Your task to perform on an android device: Go to battery settings Image 0: 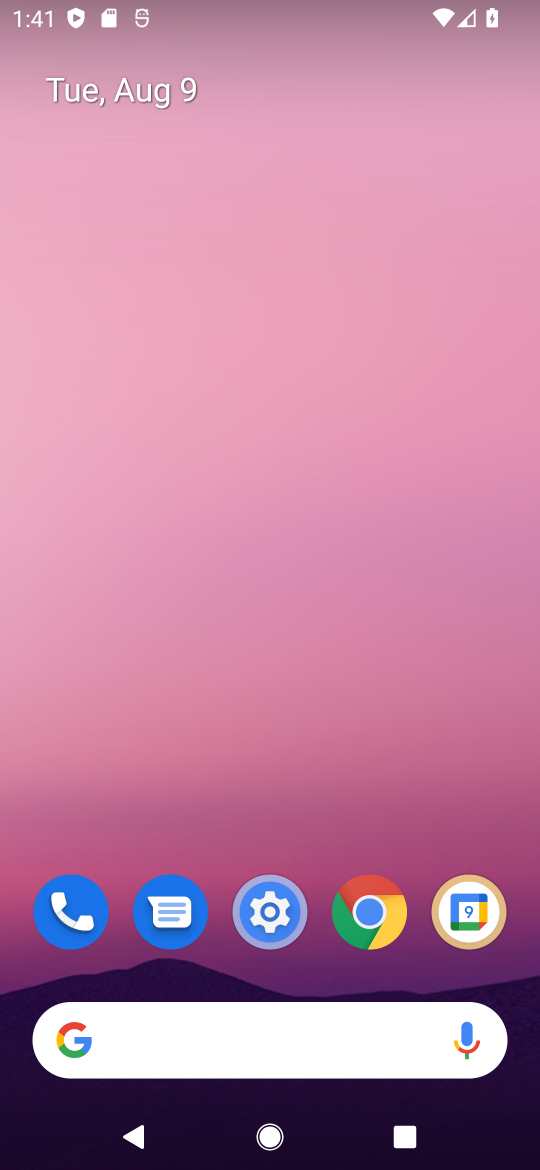
Step 0: click (267, 901)
Your task to perform on an android device: Go to battery settings Image 1: 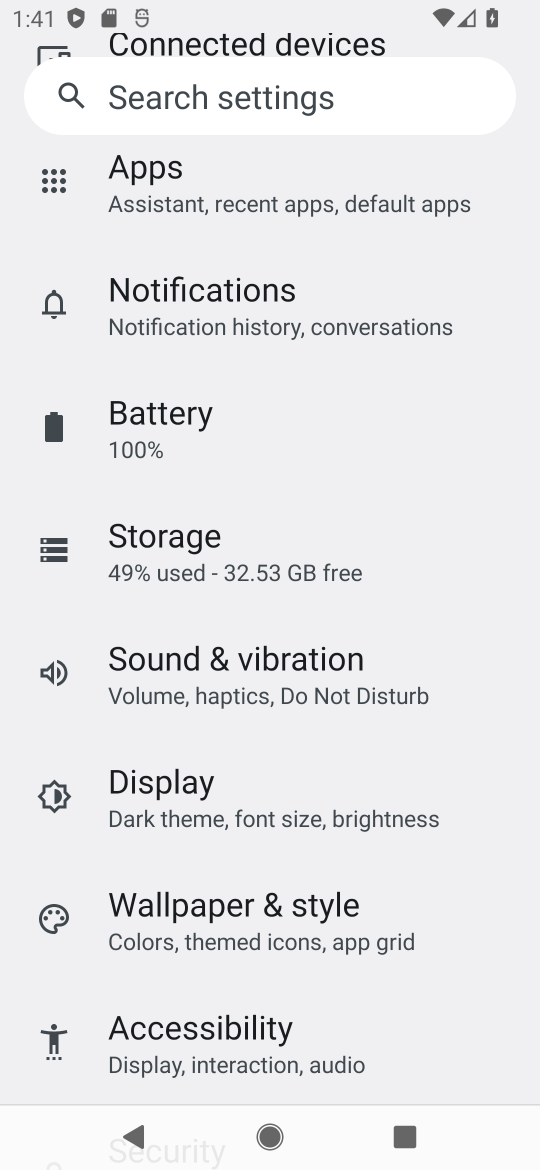
Step 1: click (150, 410)
Your task to perform on an android device: Go to battery settings Image 2: 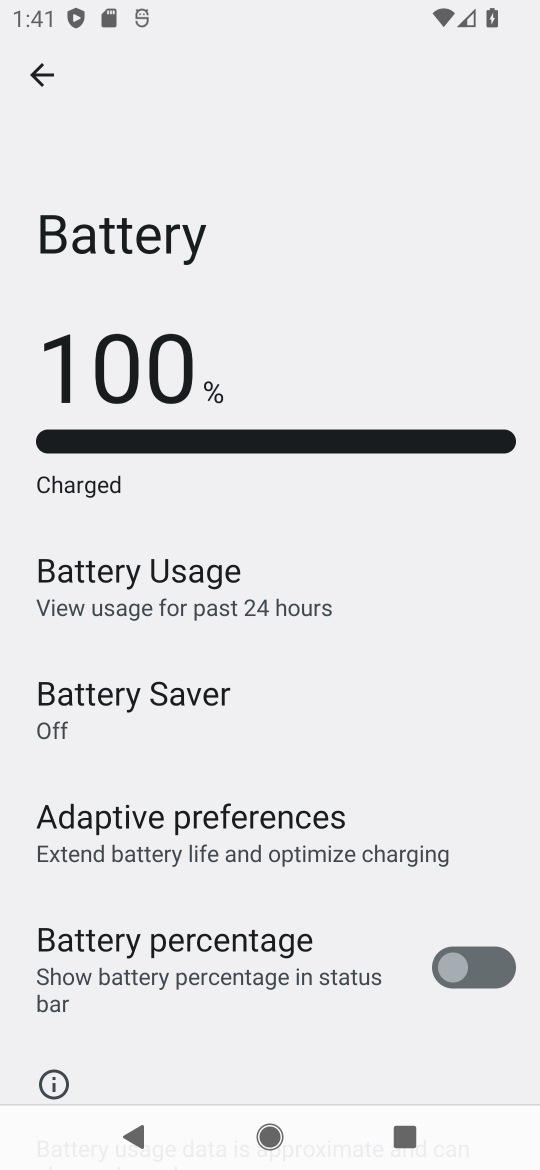
Step 2: task complete